Your task to perform on an android device: Search for the best coffee tables on Crate & Barrel Image 0: 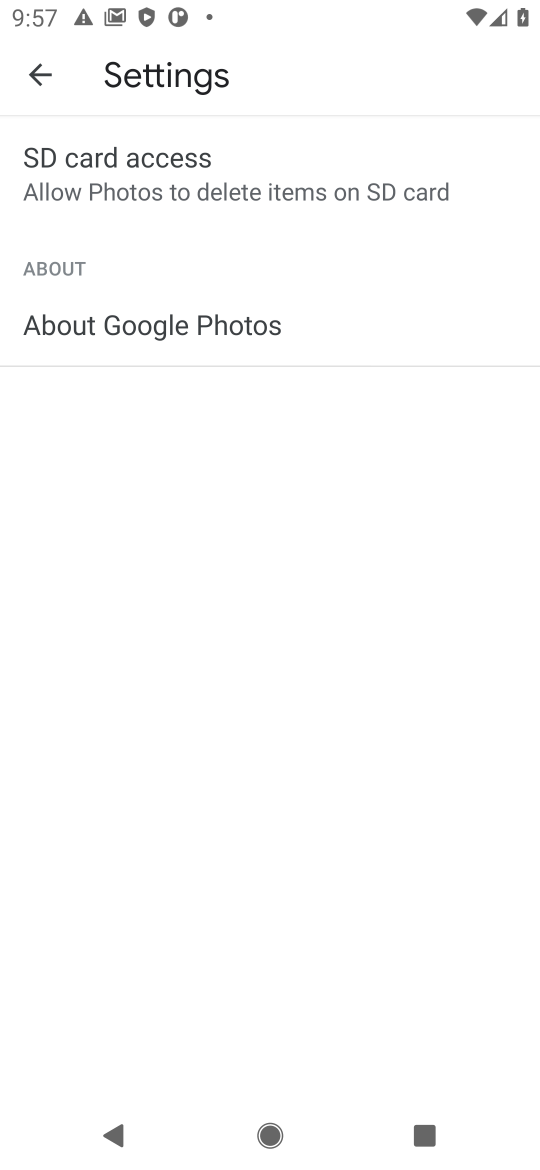
Step 0: press home button
Your task to perform on an android device: Search for the best coffee tables on Crate & Barrel Image 1: 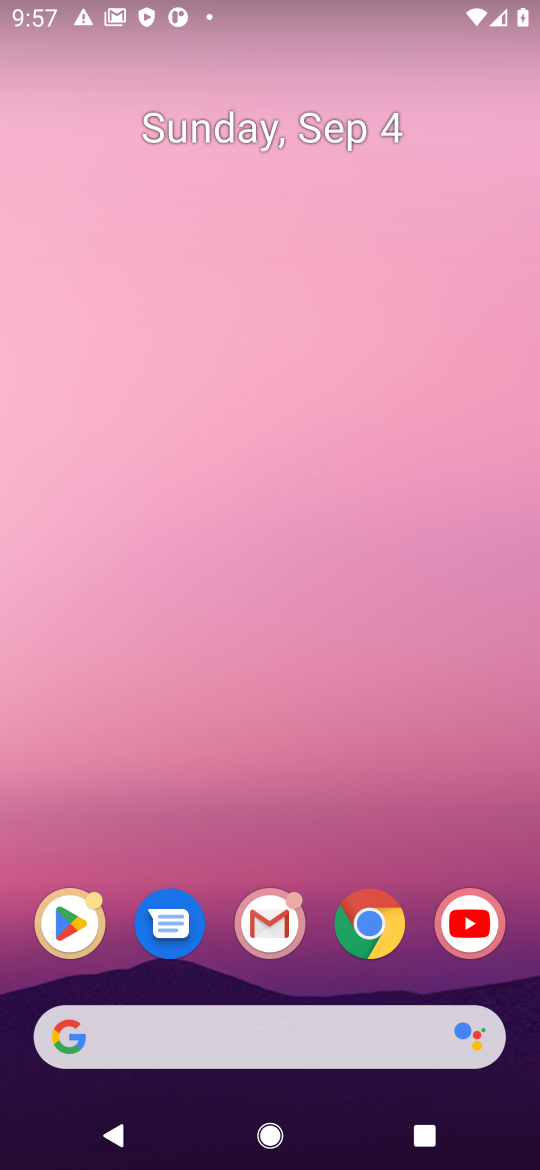
Step 1: click (387, 1031)
Your task to perform on an android device: Search for the best coffee tables on Crate & Barrel Image 2: 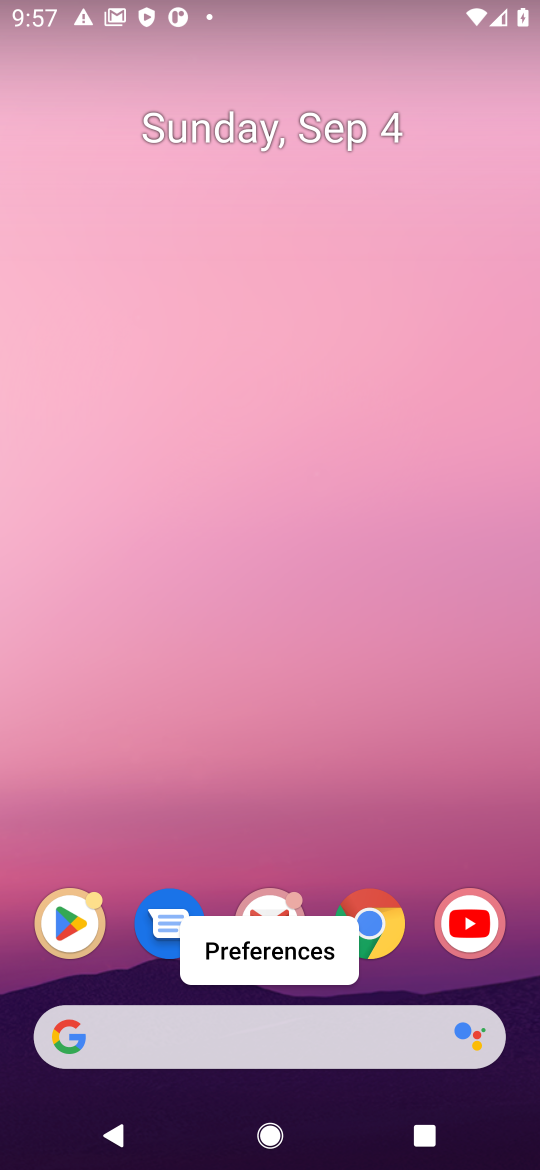
Step 2: click (388, 1031)
Your task to perform on an android device: Search for the best coffee tables on Crate & Barrel Image 3: 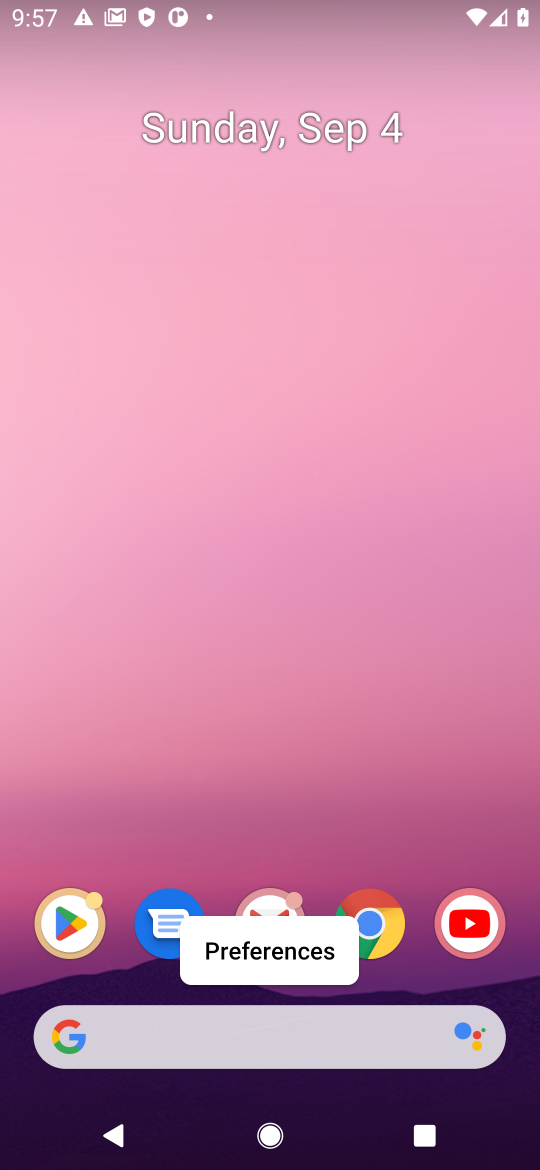
Step 3: click (492, 756)
Your task to perform on an android device: Search for the best coffee tables on Crate & Barrel Image 4: 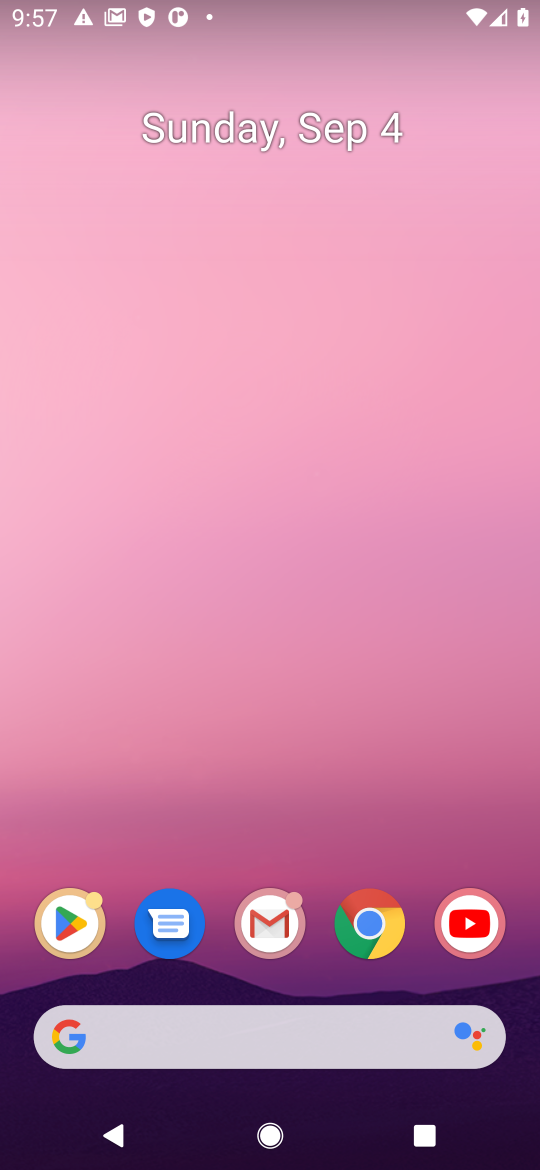
Step 4: drag from (501, 766) to (494, 49)
Your task to perform on an android device: Search for the best coffee tables on Crate & Barrel Image 5: 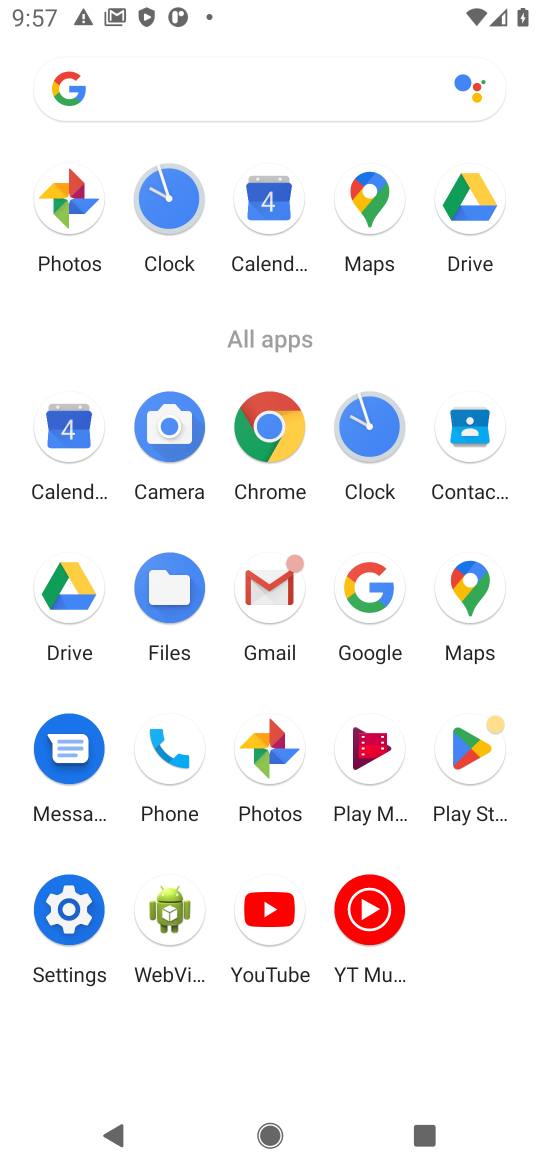
Step 5: click (361, 599)
Your task to perform on an android device: Search for the best coffee tables on Crate & Barrel Image 6: 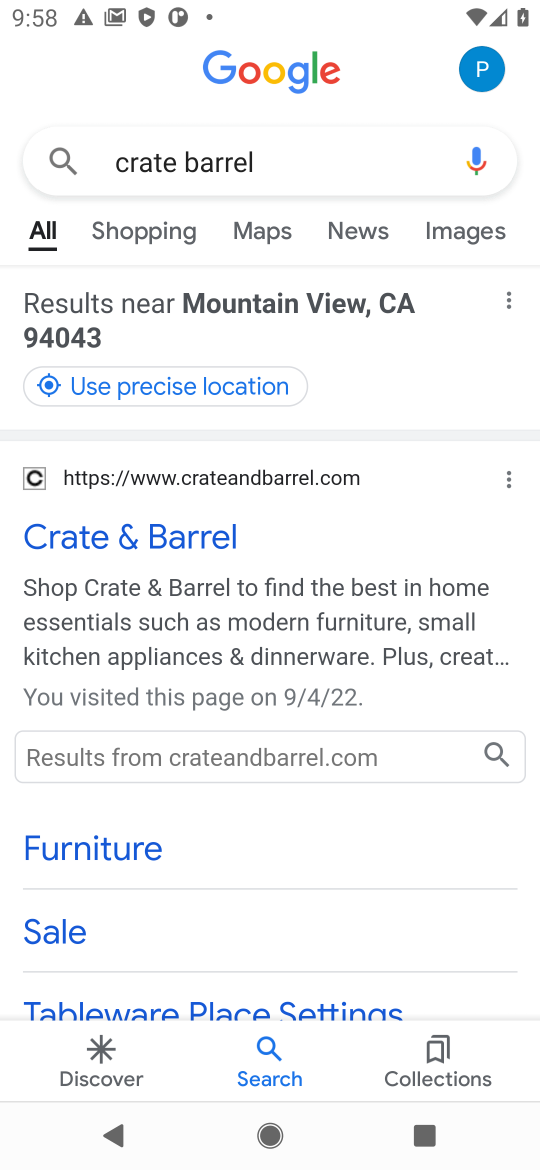
Step 6: click (161, 537)
Your task to perform on an android device: Search for the best coffee tables on Crate & Barrel Image 7: 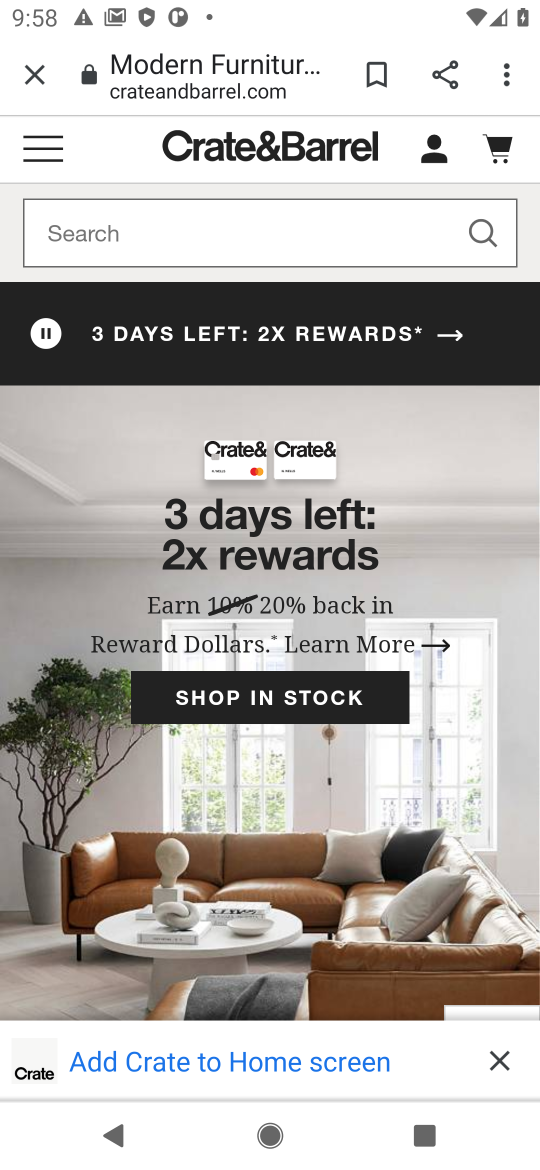
Step 7: click (220, 229)
Your task to perform on an android device: Search for the best coffee tables on Crate & Barrel Image 8: 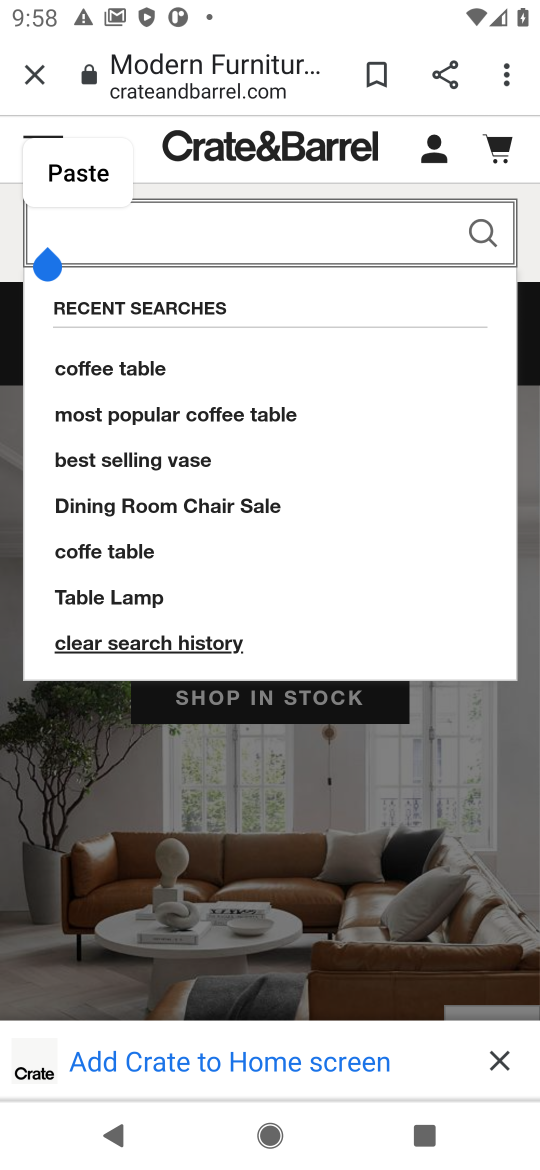
Step 8: press enter
Your task to perform on an android device: Search for the best coffee tables on Crate & Barrel Image 9: 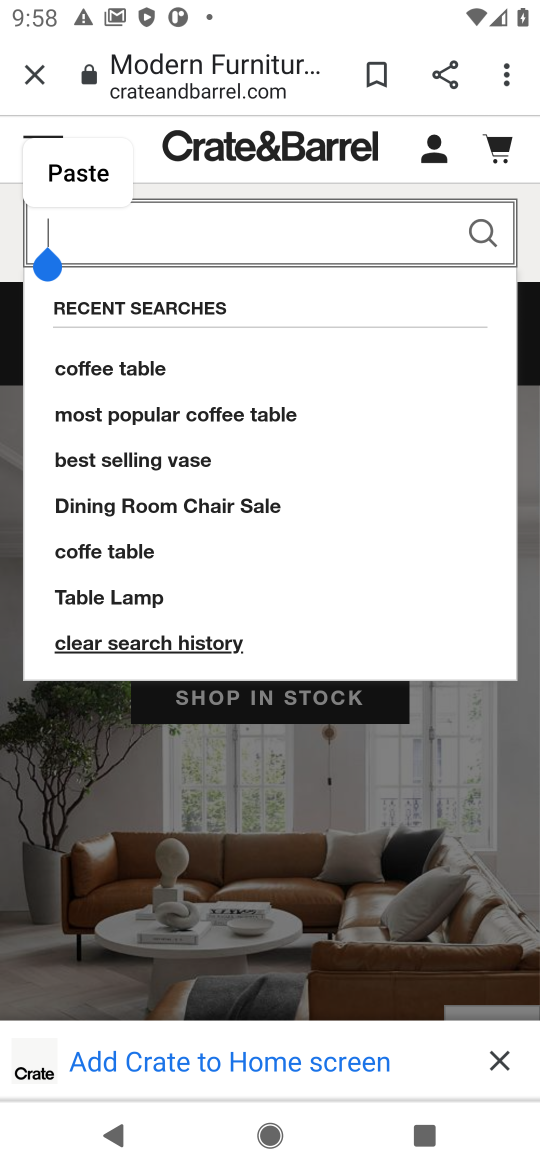
Step 9: type "best coffee table"
Your task to perform on an android device: Search for the best coffee tables on Crate & Barrel Image 10: 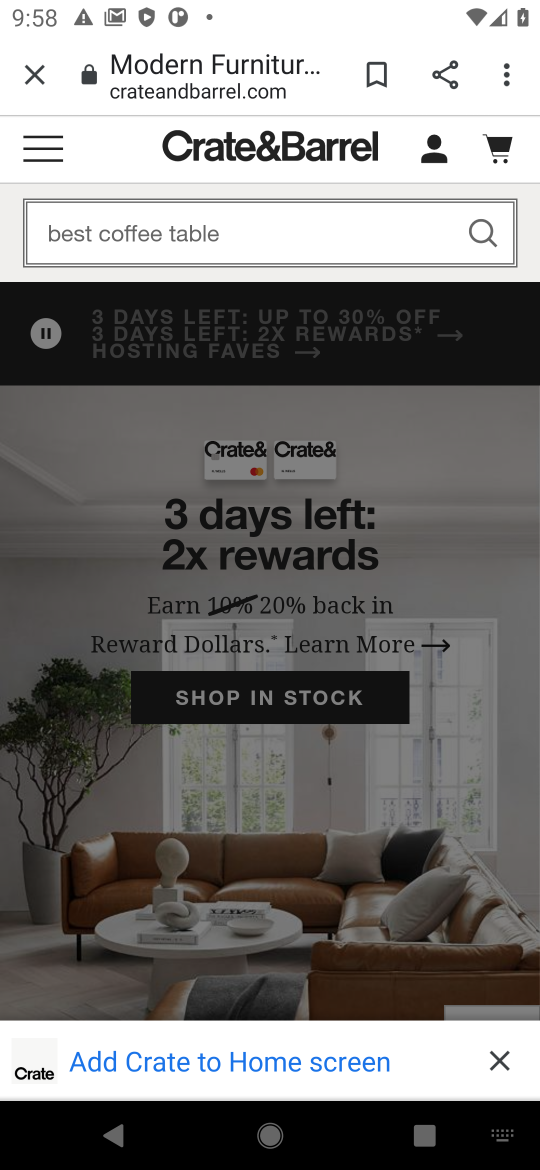
Step 10: click (483, 234)
Your task to perform on an android device: Search for the best coffee tables on Crate & Barrel Image 11: 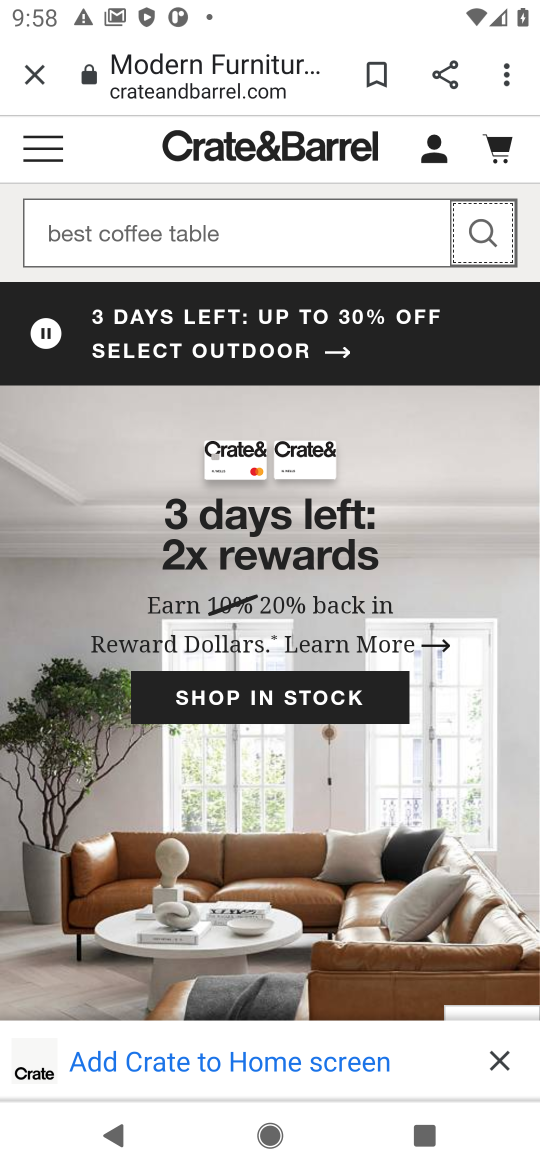
Step 11: click (470, 227)
Your task to perform on an android device: Search for the best coffee tables on Crate & Barrel Image 12: 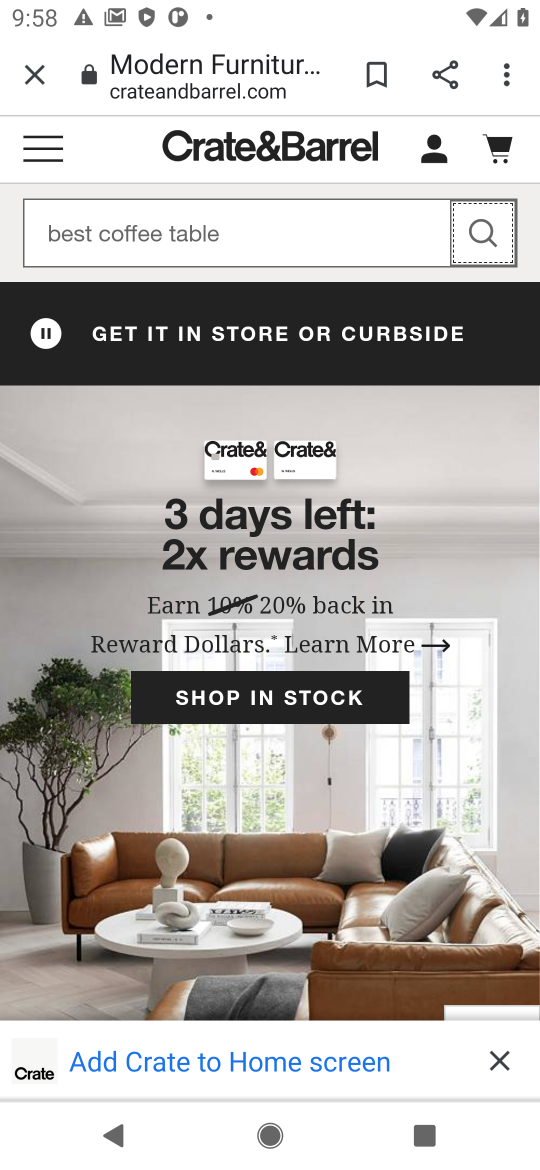
Step 12: click (482, 227)
Your task to perform on an android device: Search for the best coffee tables on Crate & Barrel Image 13: 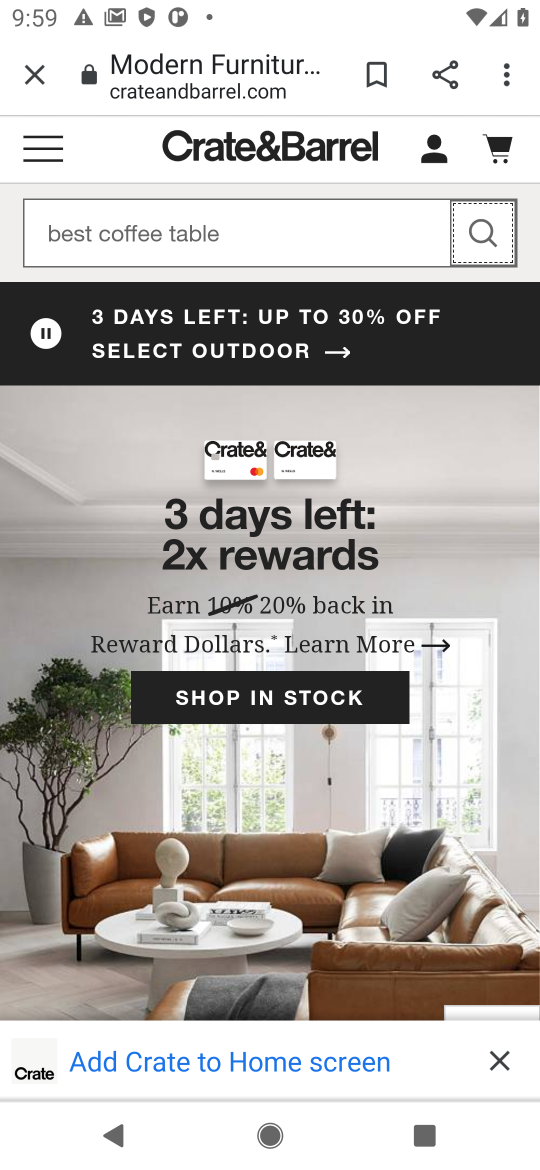
Step 13: task complete